Your task to perform on an android device: What is the news today? Image 0: 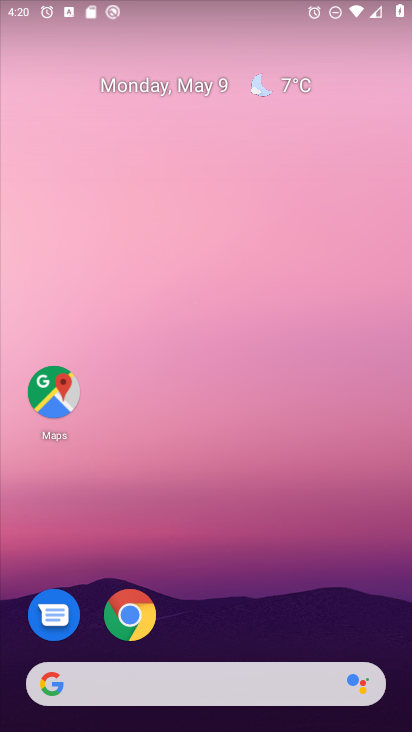
Step 0: drag from (383, 627) to (366, 565)
Your task to perform on an android device: What is the news today? Image 1: 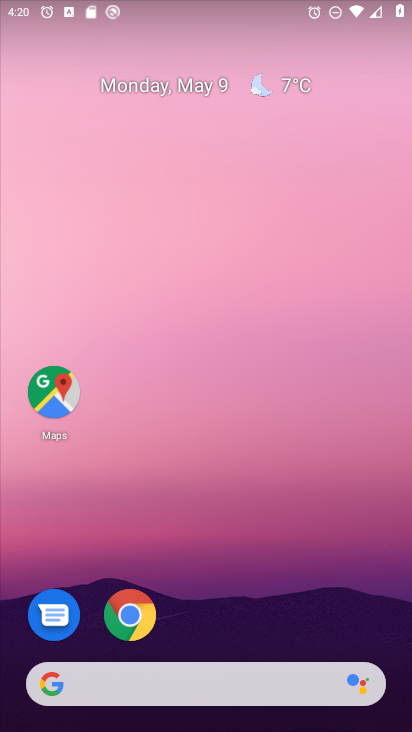
Step 1: task complete